Your task to perform on an android device: open a bookmark in the chrome app Image 0: 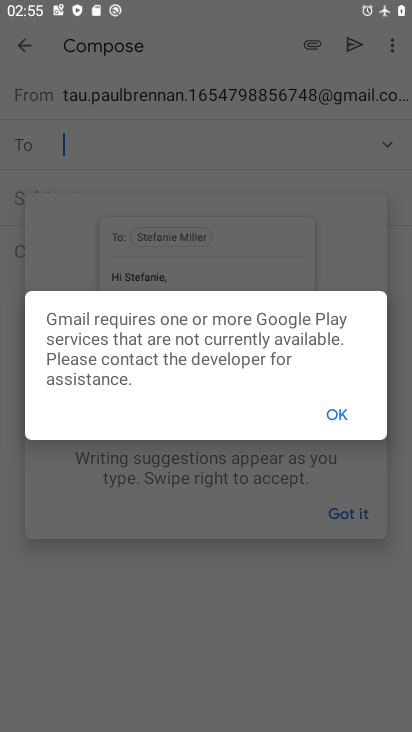
Step 0: press home button
Your task to perform on an android device: open a bookmark in the chrome app Image 1: 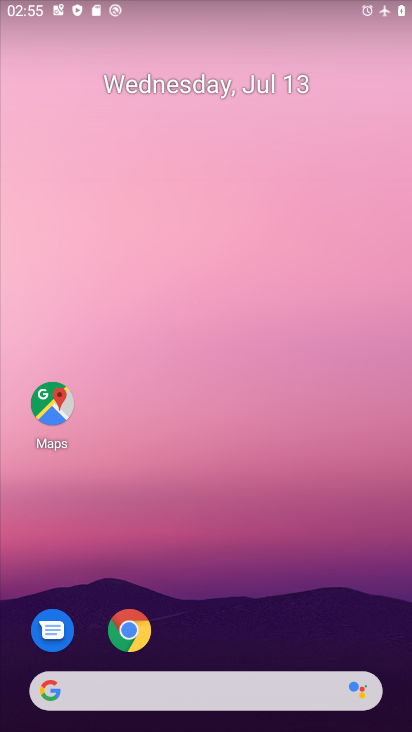
Step 1: click (127, 634)
Your task to perform on an android device: open a bookmark in the chrome app Image 2: 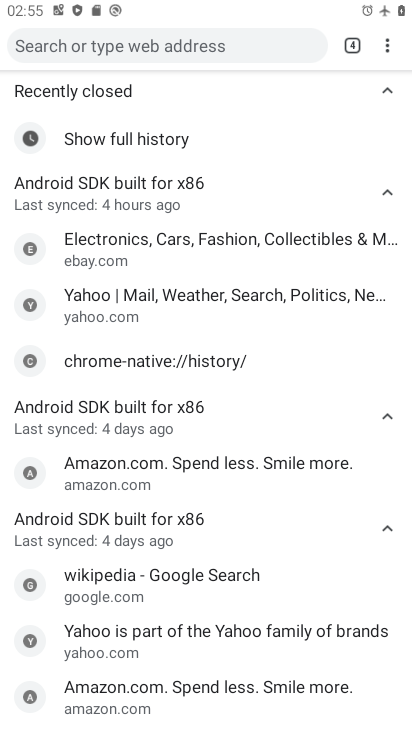
Step 2: click (386, 42)
Your task to perform on an android device: open a bookmark in the chrome app Image 3: 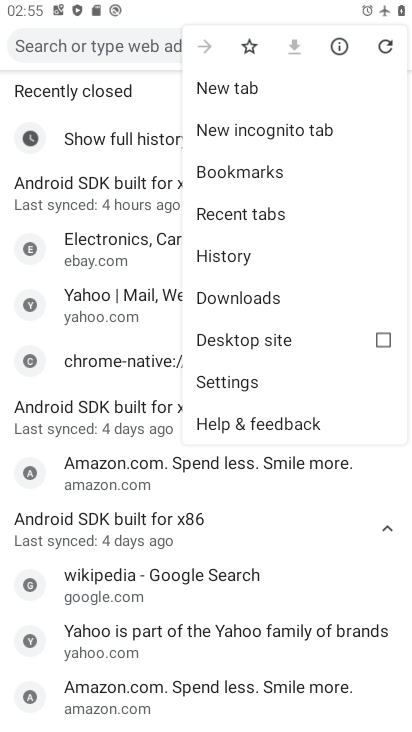
Step 3: click (260, 181)
Your task to perform on an android device: open a bookmark in the chrome app Image 4: 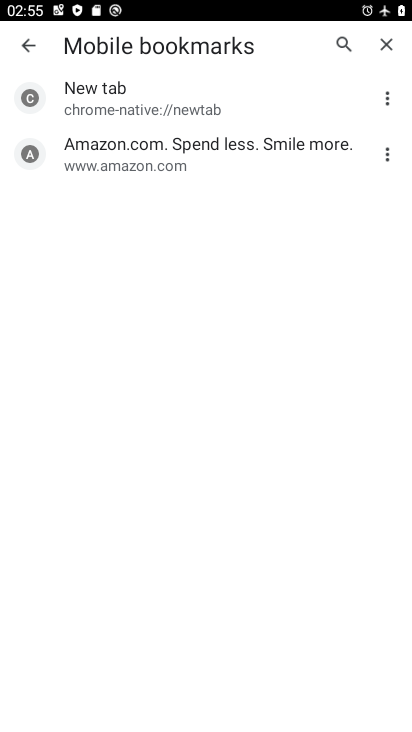
Step 4: click (187, 166)
Your task to perform on an android device: open a bookmark in the chrome app Image 5: 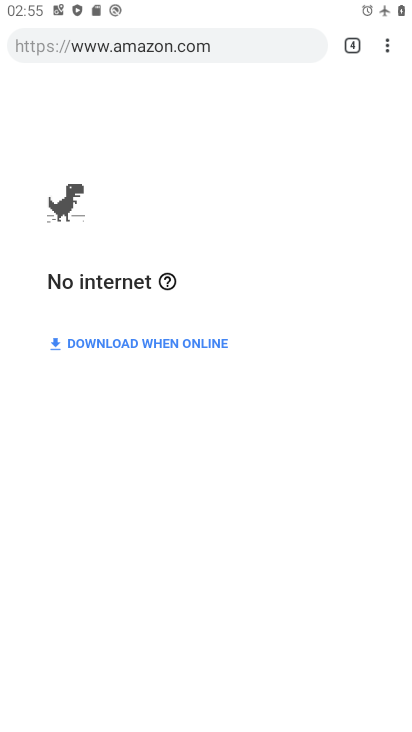
Step 5: task complete